Your task to perform on an android device: When is my next meeting? Image 0: 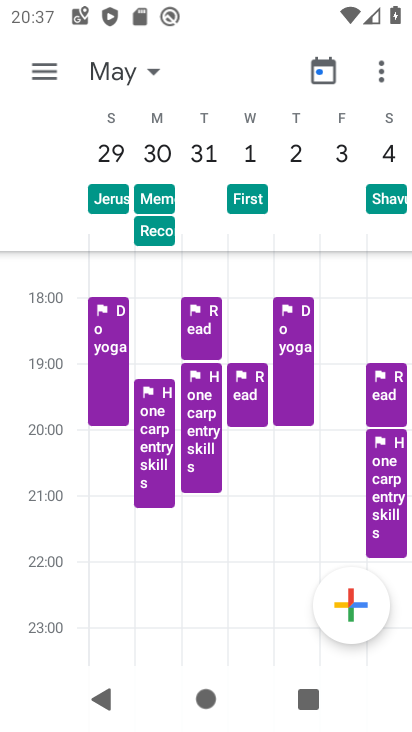
Step 0: press home button
Your task to perform on an android device: When is my next meeting? Image 1: 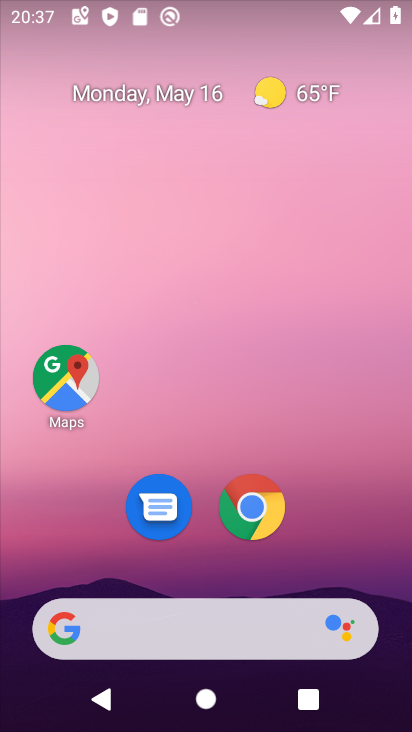
Step 1: drag from (215, 581) to (181, 40)
Your task to perform on an android device: When is my next meeting? Image 2: 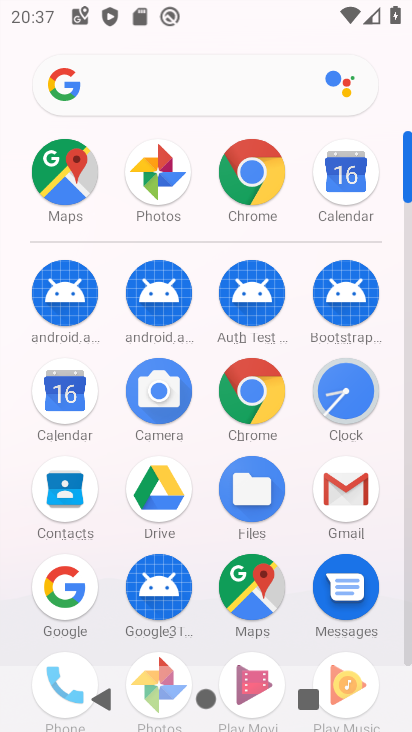
Step 2: click (343, 183)
Your task to perform on an android device: When is my next meeting? Image 3: 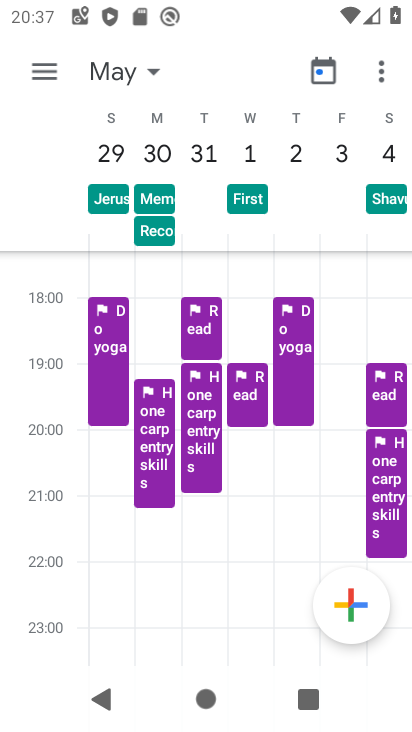
Step 3: click (334, 59)
Your task to perform on an android device: When is my next meeting? Image 4: 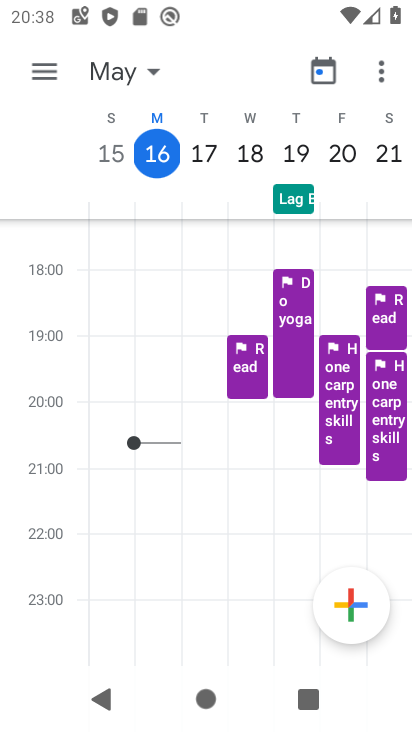
Step 4: task complete